Your task to perform on an android device: Show me popular videos on Youtube Image 0: 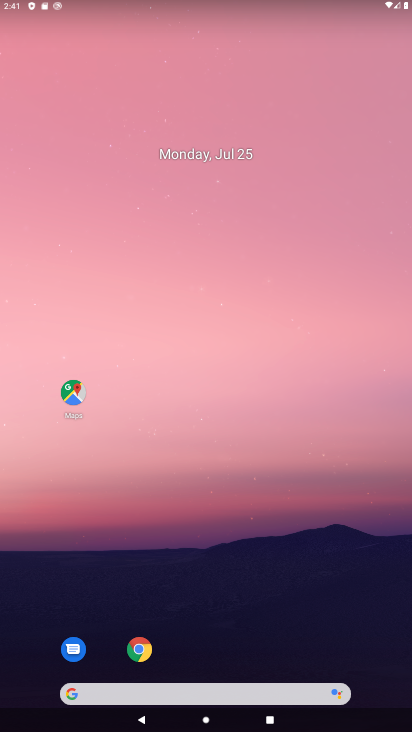
Step 0: drag from (186, 555) to (224, 61)
Your task to perform on an android device: Show me popular videos on Youtube Image 1: 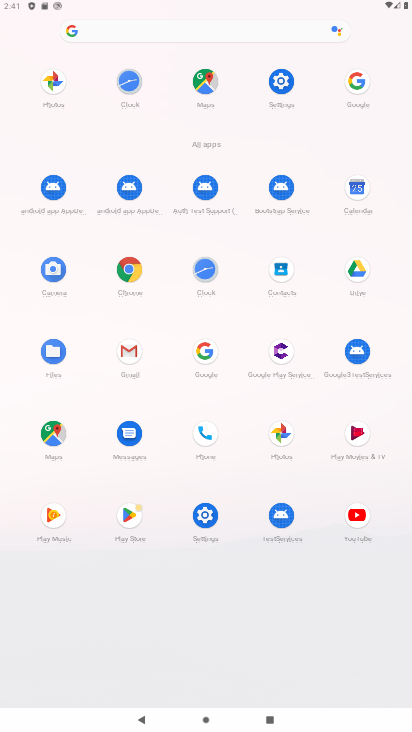
Step 1: click (365, 517)
Your task to perform on an android device: Show me popular videos on Youtube Image 2: 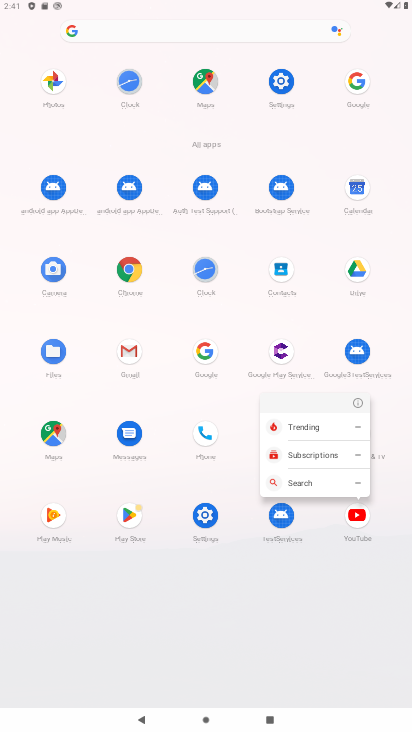
Step 2: click (358, 498)
Your task to perform on an android device: Show me popular videos on Youtube Image 3: 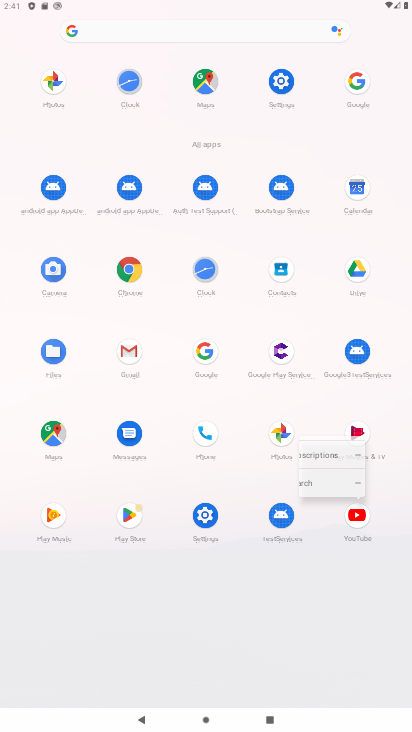
Step 3: click (358, 498)
Your task to perform on an android device: Show me popular videos on Youtube Image 4: 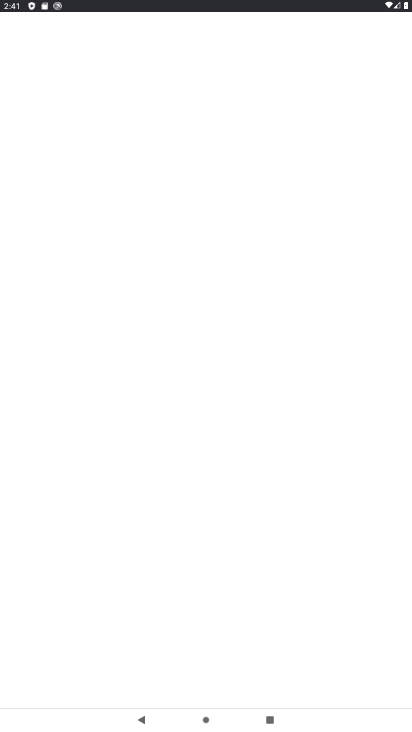
Step 4: click (358, 523)
Your task to perform on an android device: Show me popular videos on Youtube Image 5: 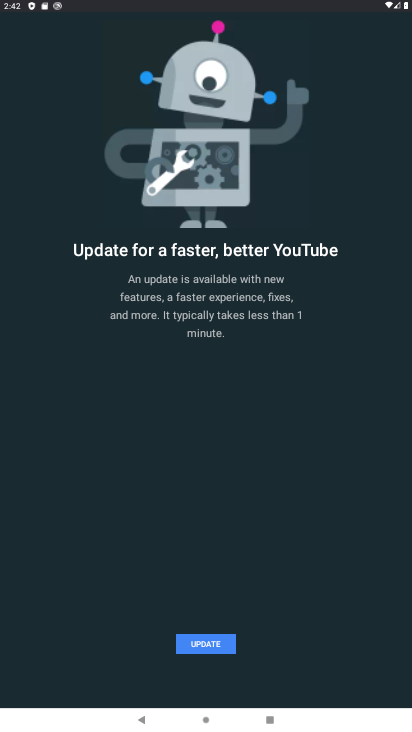
Step 5: click (196, 649)
Your task to perform on an android device: Show me popular videos on Youtube Image 6: 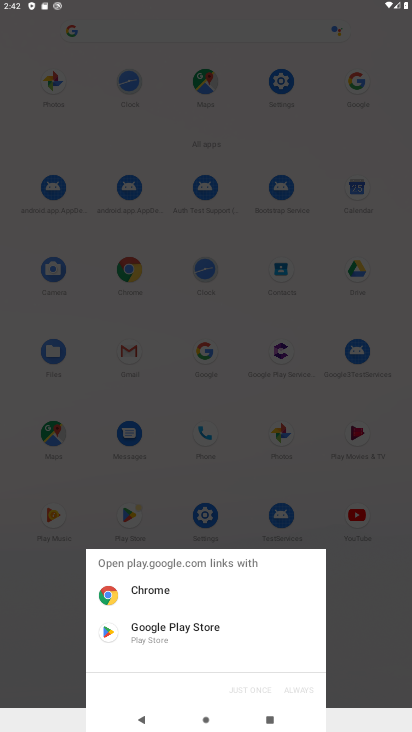
Step 6: click (171, 628)
Your task to perform on an android device: Show me popular videos on Youtube Image 7: 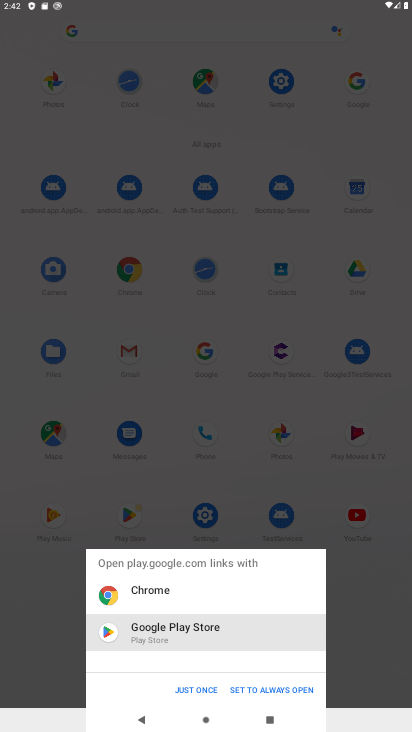
Step 7: click (200, 690)
Your task to perform on an android device: Show me popular videos on Youtube Image 8: 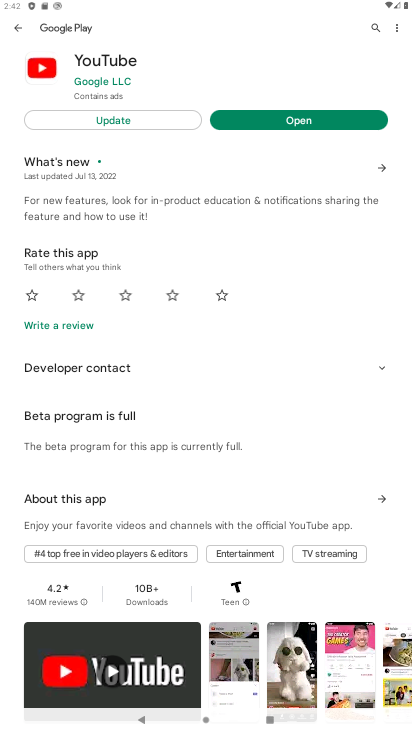
Step 8: click (142, 117)
Your task to perform on an android device: Show me popular videos on Youtube Image 9: 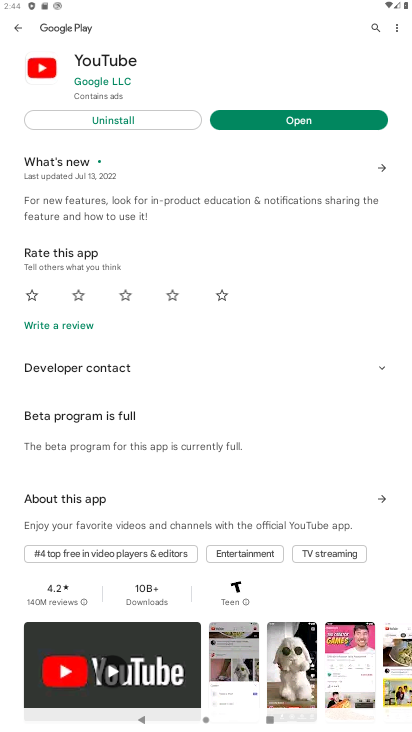
Step 9: click (284, 122)
Your task to perform on an android device: Show me popular videos on Youtube Image 10: 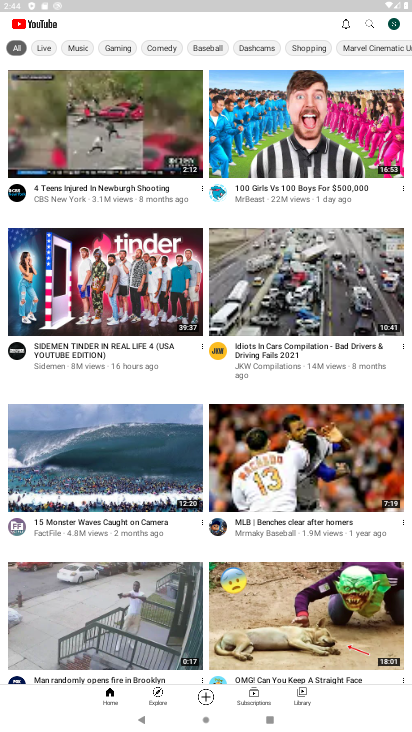
Step 10: task complete